Your task to perform on an android device: install app "LinkedIn" Image 0: 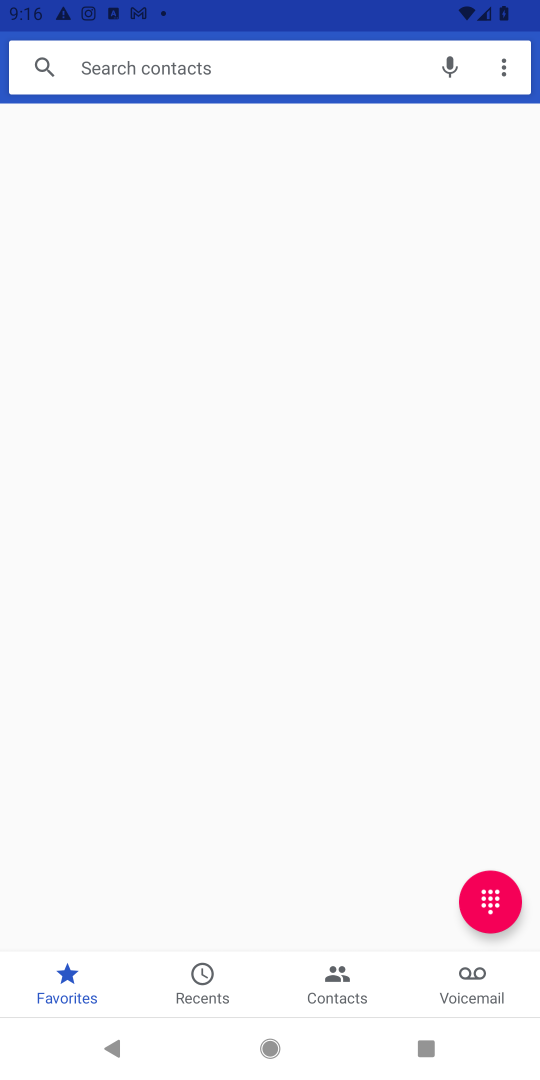
Step 0: press home button
Your task to perform on an android device: install app "LinkedIn" Image 1: 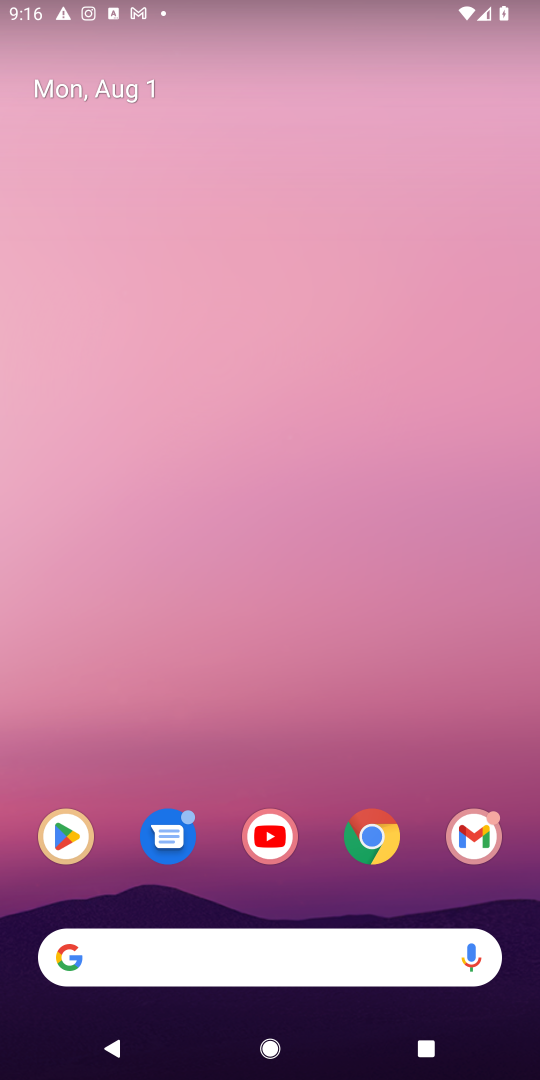
Step 1: click (53, 828)
Your task to perform on an android device: install app "LinkedIn" Image 2: 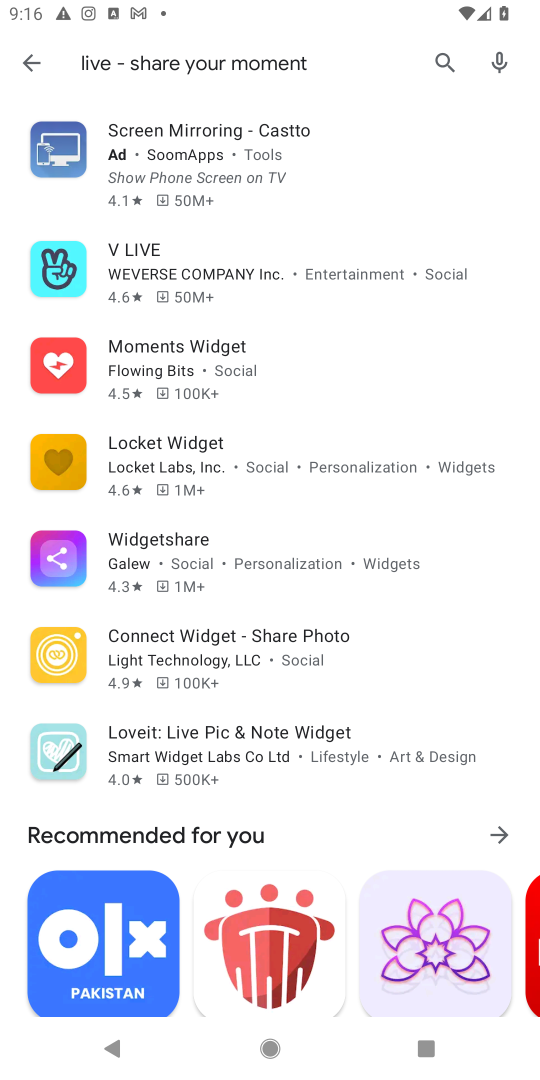
Step 2: click (443, 54)
Your task to perform on an android device: install app "LinkedIn" Image 3: 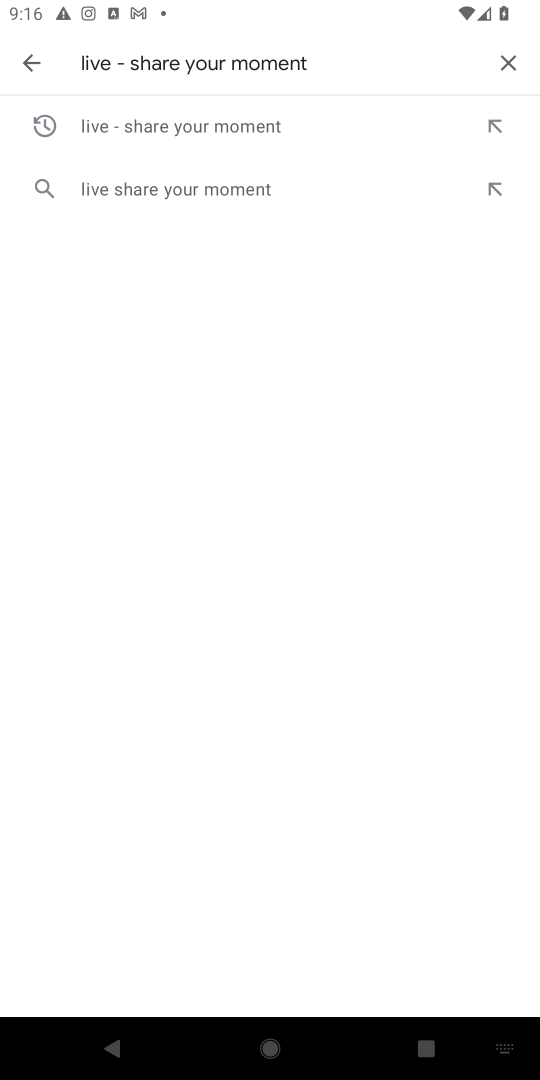
Step 3: click (507, 70)
Your task to perform on an android device: install app "LinkedIn" Image 4: 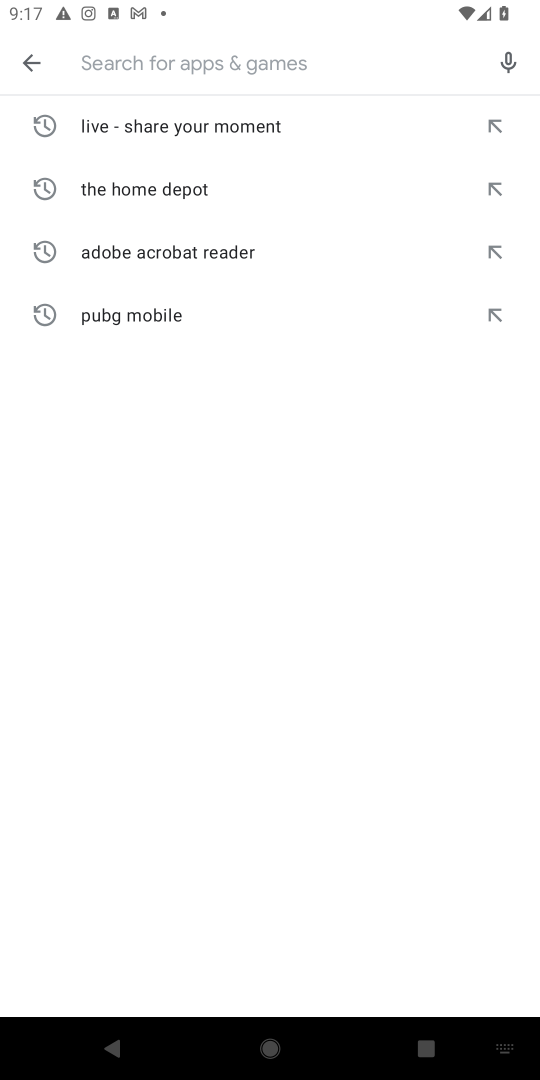
Step 4: type "LinkedIn"
Your task to perform on an android device: install app "LinkedIn" Image 5: 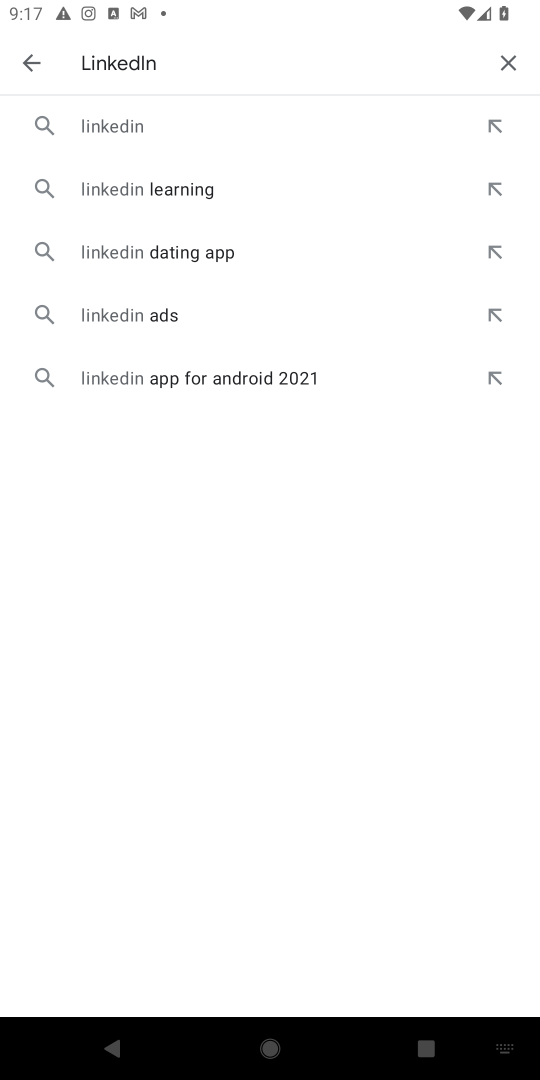
Step 5: click (73, 120)
Your task to perform on an android device: install app "LinkedIn" Image 6: 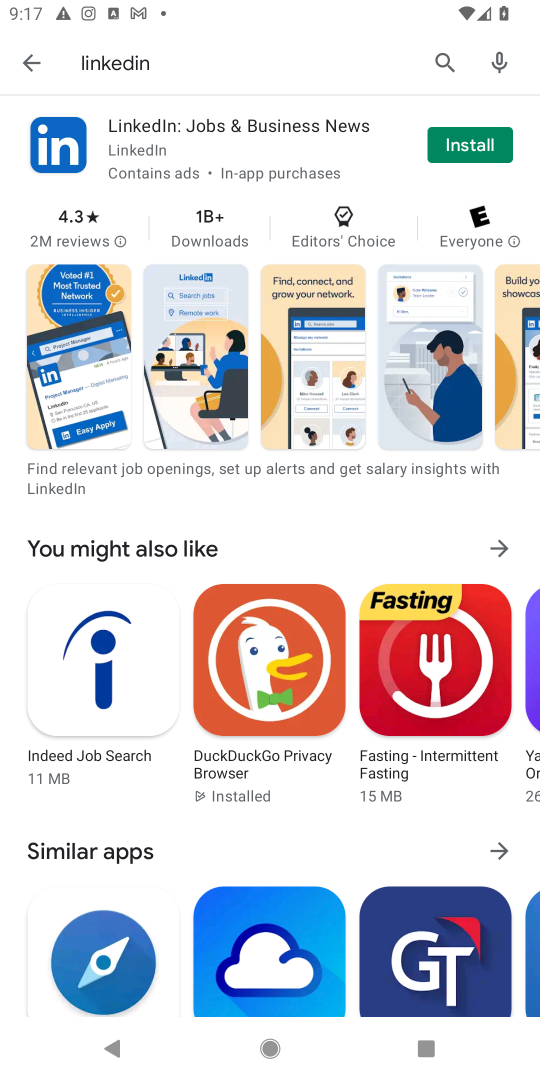
Step 6: click (464, 144)
Your task to perform on an android device: install app "LinkedIn" Image 7: 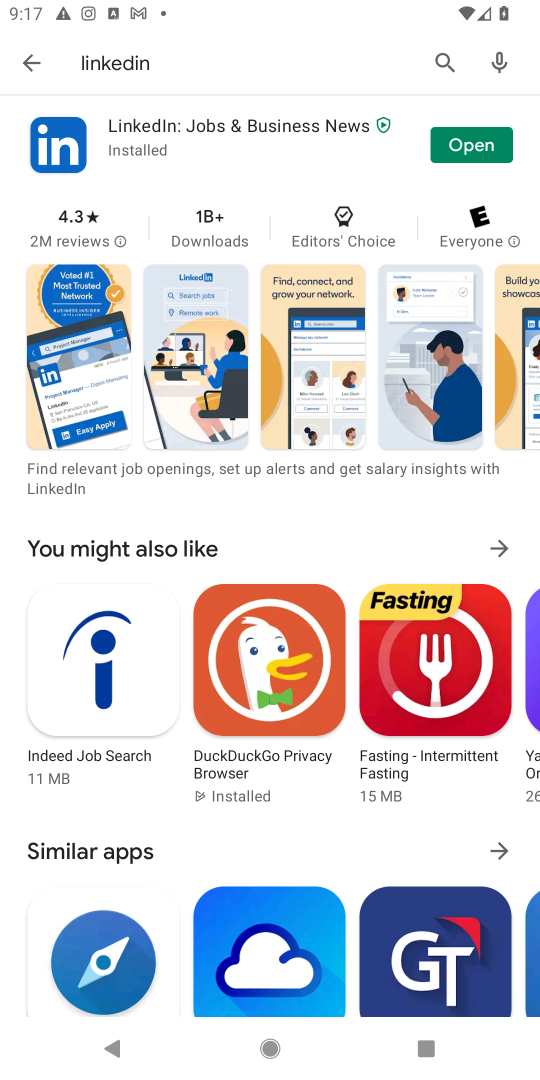
Step 7: task complete